Your task to perform on an android device: read, delete, or share a saved page in the chrome app Image 0: 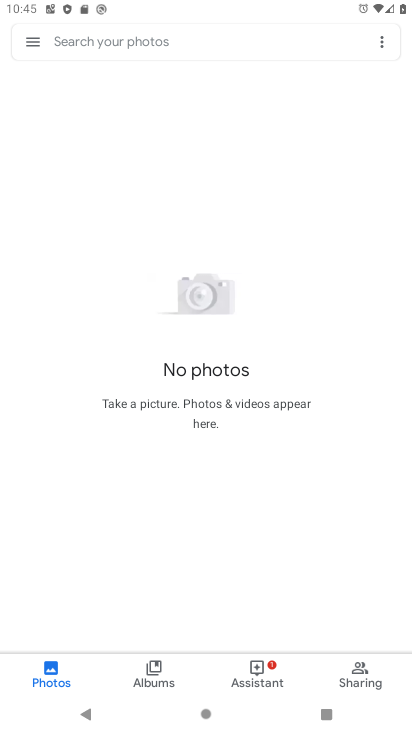
Step 0: press home button
Your task to perform on an android device: read, delete, or share a saved page in the chrome app Image 1: 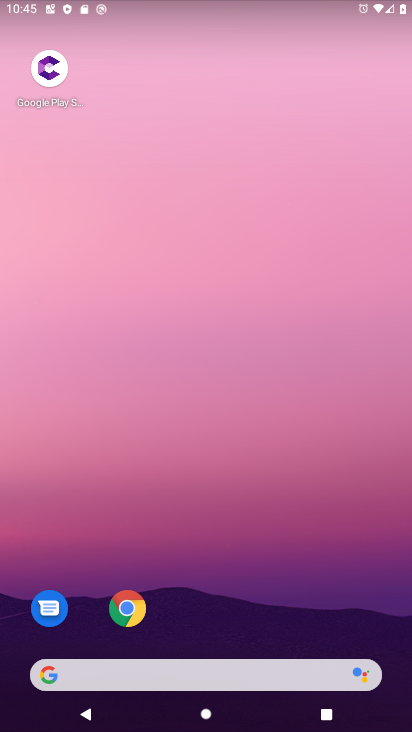
Step 1: drag from (227, 723) to (219, 7)
Your task to perform on an android device: read, delete, or share a saved page in the chrome app Image 2: 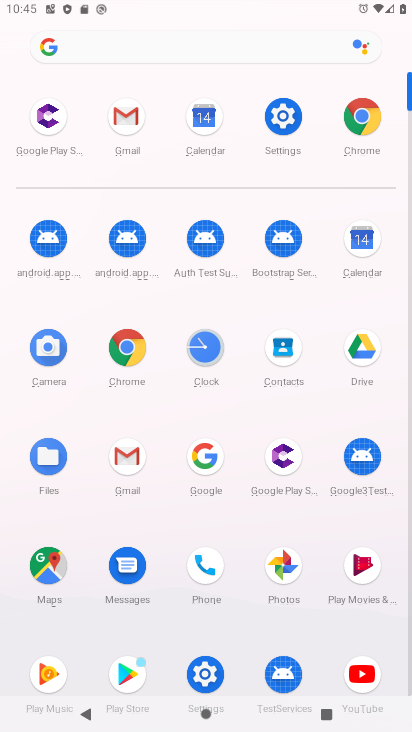
Step 2: click (128, 344)
Your task to perform on an android device: read, delete, or share a saved page in the chrome app Image 3: 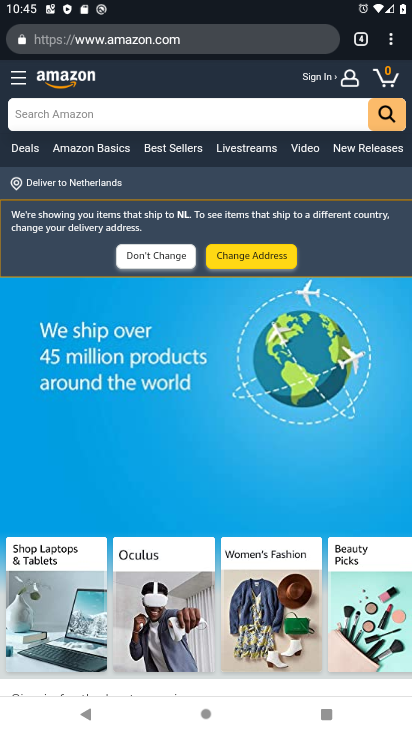
Step 3: click (389, 43)
Your task to perform on an android device: read, delete, or share a saved page in the chrome app Image 4: 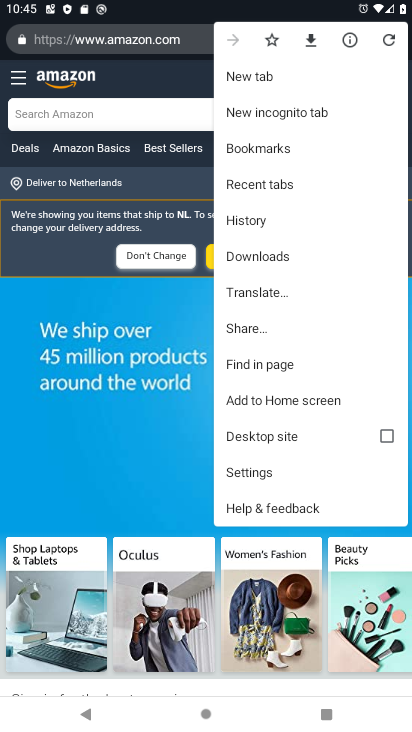
Step 4: click (264, 257)
Your task to perform on an android device: read, delete, or share a saved page in the chrome app Image 5: 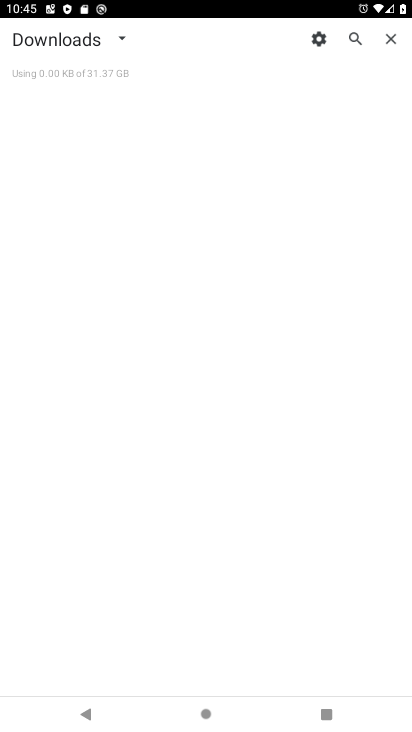
Step 5: task complete